Your task to perform on an android device: Show me popular videos on Youtube Image 0: 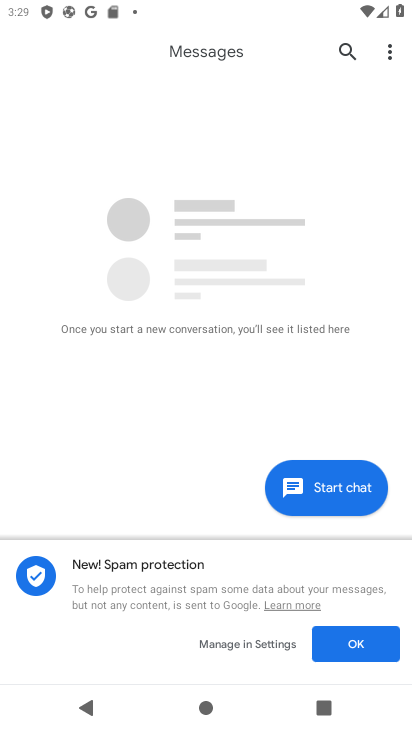
Step 0: press home button
Your task to perform on an android device: Show me popular videos on Youtube Image 1: 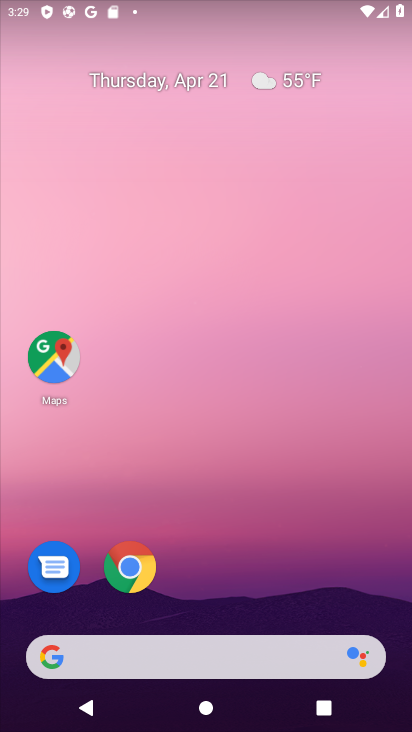
Step 1: drag from (222, 597) to (269, 0)
Your task to perform on an android device: Show me popular videos on Youtube Image 2: 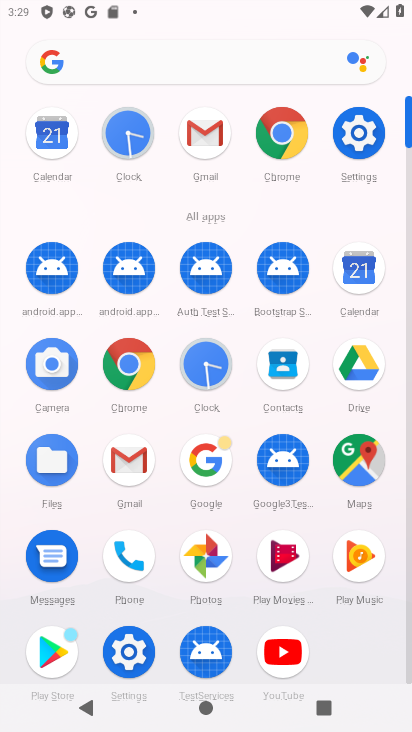
Step 2: drag from (250, 575) to (262, 221)
Your task to perform on an android device: Show me popular videos on Youtube Image 3: 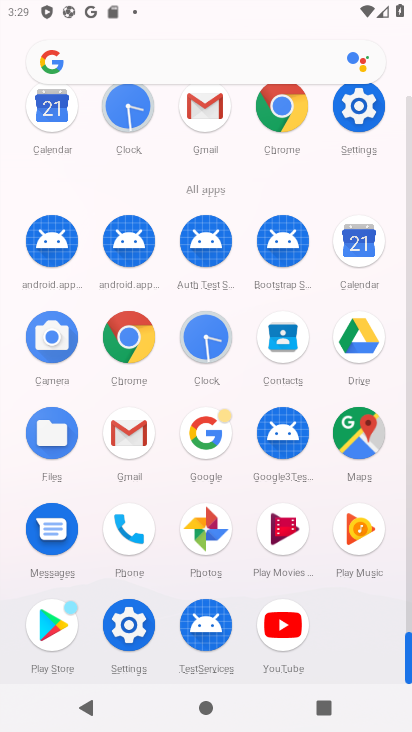
Step 3: click (283, 616)
Your task to perform on an android device: Show me popular videos on Youtube Image 4: 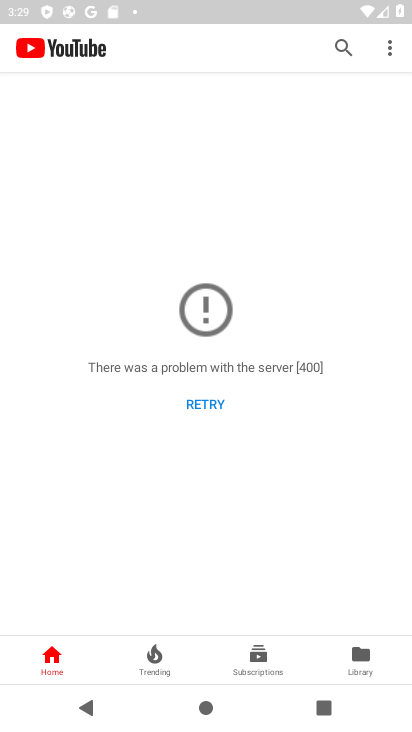
Step 4: task complete